Your task to perform on an android device: Open Google Maps and go to "Timeline" Image 0: 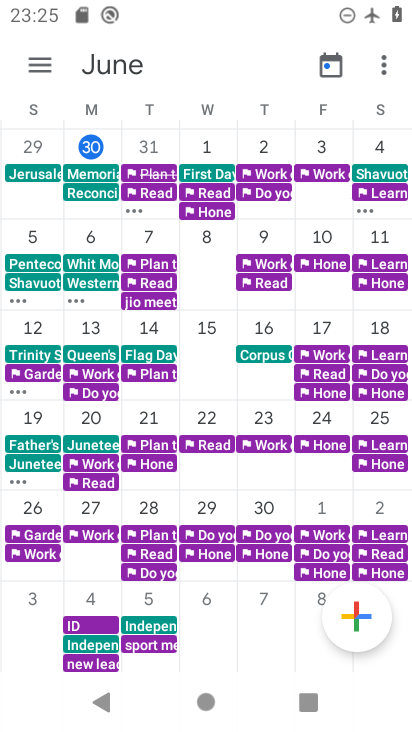
Step 0: press home button
Your task to perform on an android device: Open Google Maps and go to "Timeline" Image 1: 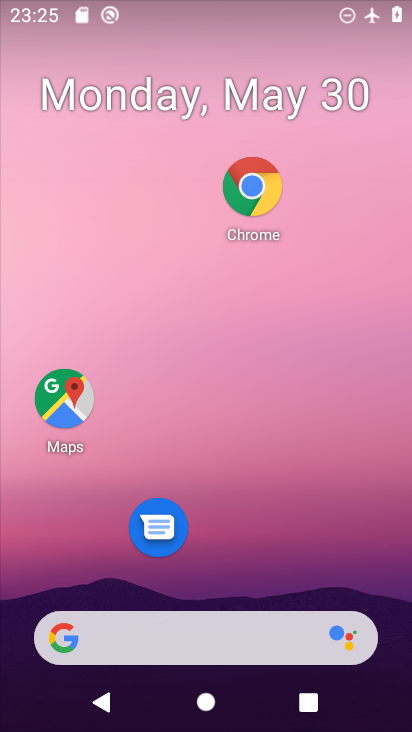
Step 1: drag from (285, 555) to (358, 231)
Your task to perform on an android device: Open Google Maps and go to "Timeline" Image 2: 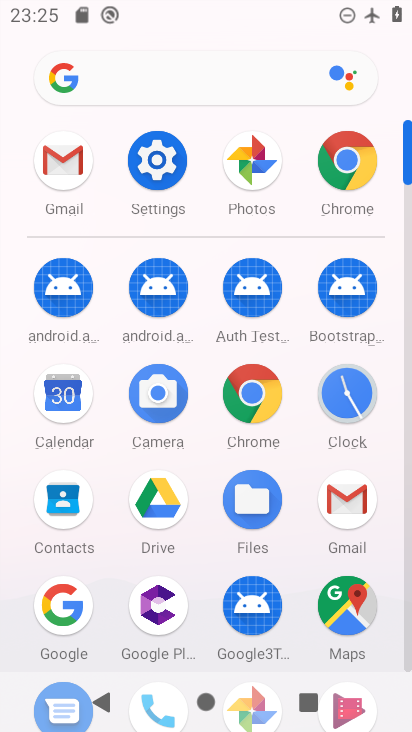
Step 2: click (241, 392)
Your task to perform on an android device: Open Google Maps and go to "Timeline" Image 3: 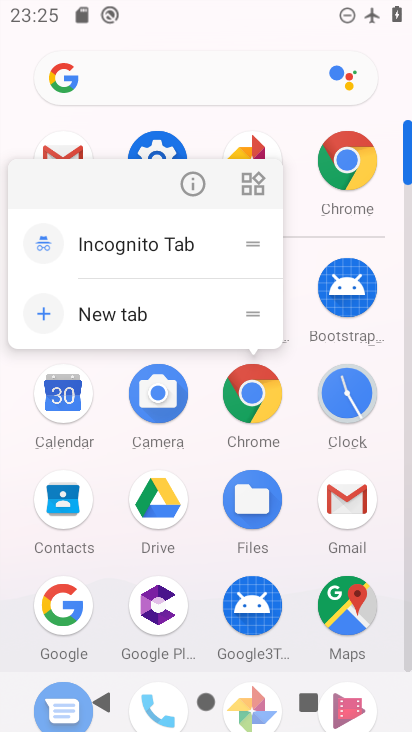
Step 3: click (208, 447)
Your task to perform on an android device: Open Google Maps and go to "Timeline" Image 4: 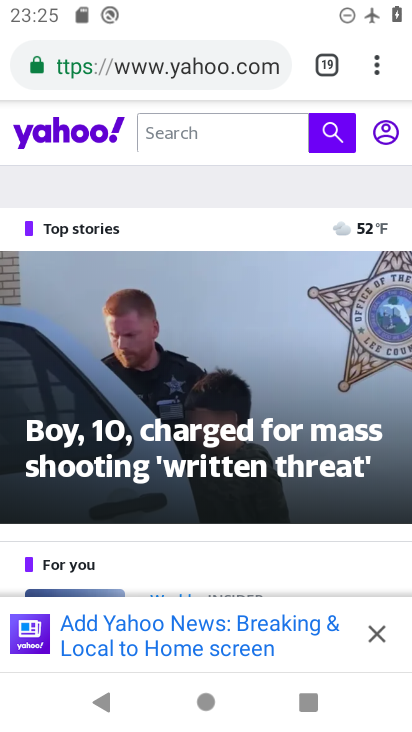
Step 4: press home button
Your task to perform on an android device: Open Google Maps and go to "Timeline" Image 5: 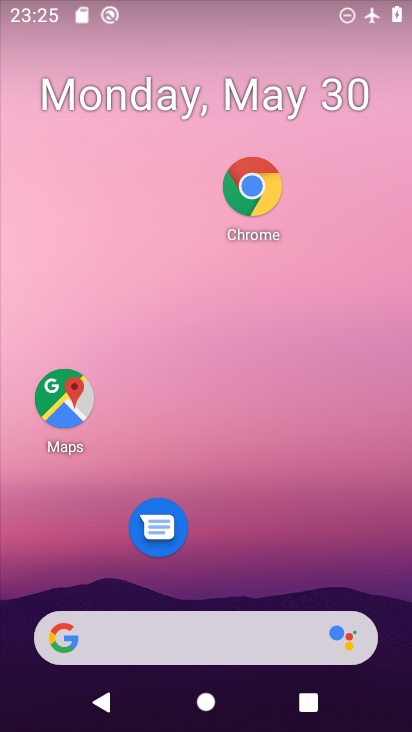
Step 5: drag from (232, 533) to (251, 265)
Your task to perform on an android device: Open Google Maps and go to "Timeline" Image 6: 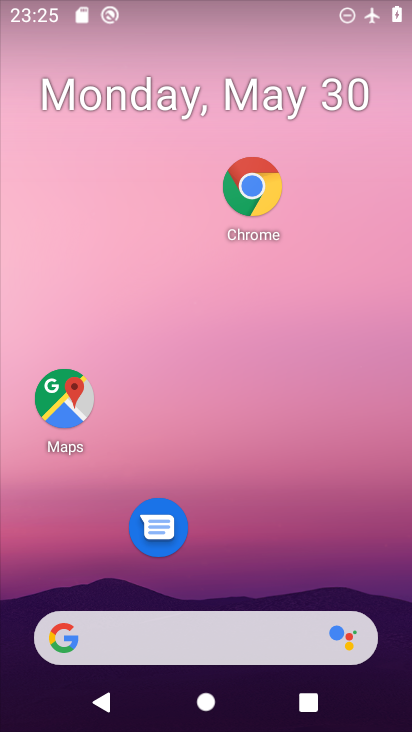
Step 6: drag from (264, 591) to (290, 263)
Your task to perform on an android device: Open Google Maps and go to "Timeline" Image 7: 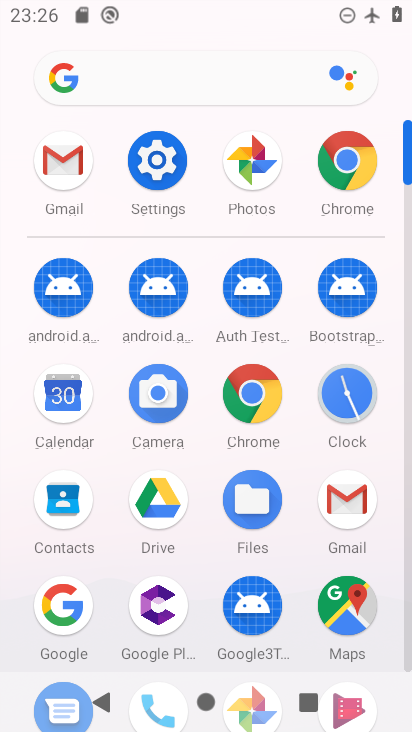
Step 7: drag from (209, 507) to (229, 250)
Your task to perform on an android device: Open Google Maps and go to "Timeline" Image 8: 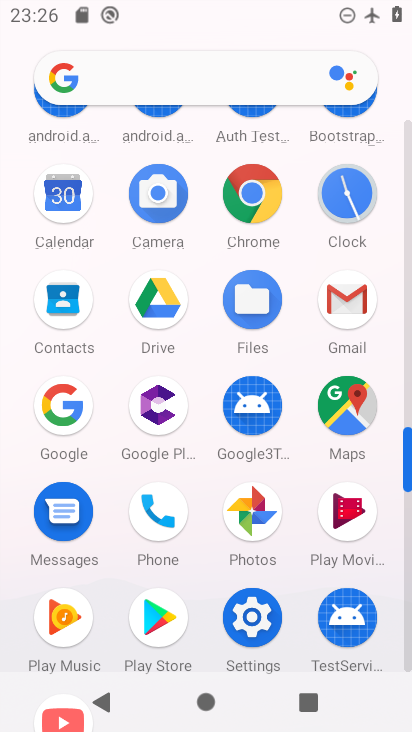
Step 8: click (346, 413)
Your task to perform on an android device: Open Google Maps and go to "Timeline" Image 9: 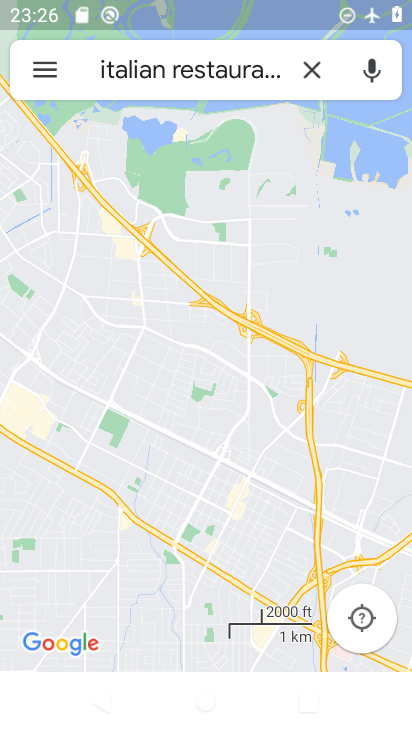
Step 9: click (37, 75)
Your task to perform on an android device: Open Google Maps and go to "Timeline" Image 10: 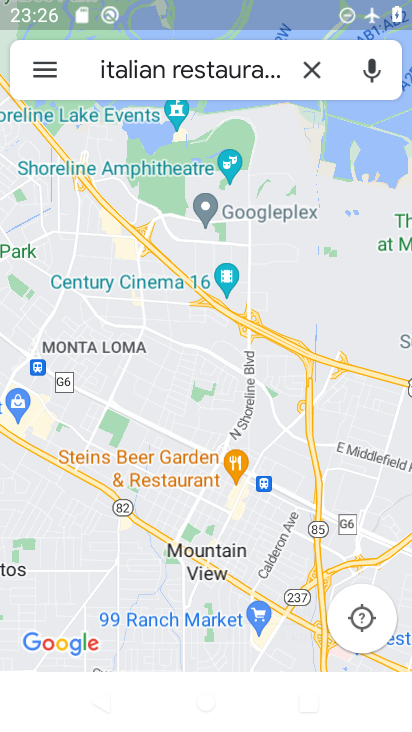
Step 10: click (39, 56)
Your task to perform on an android device: Open Google Maps and go to "Timeline" Image 11: 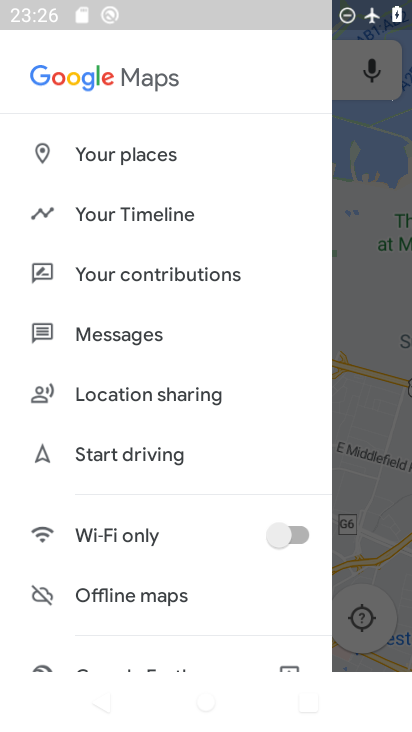
Step 11: click (119, 199)
Your task to perform on an android device: Open Google Maps and go to "Timeline" Image 12: 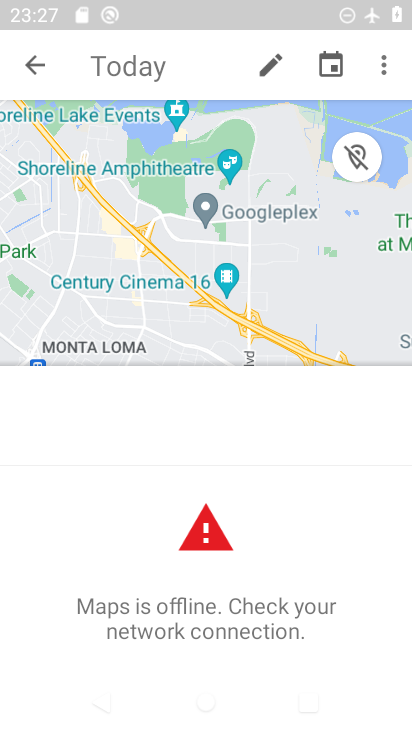
Step 12: task complete